Your task to perform on an android device: Go to Amazon Image 0: 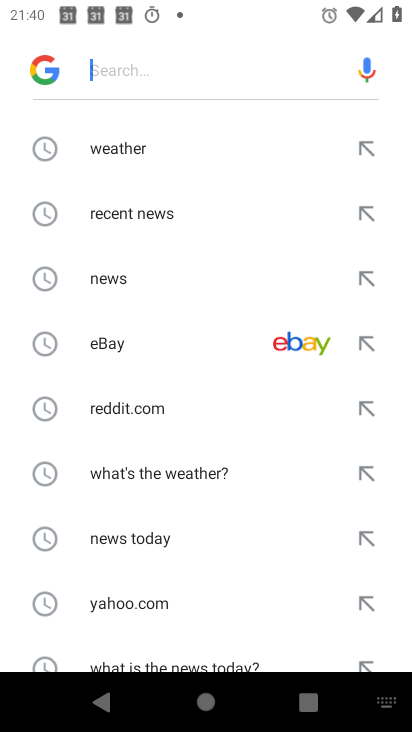
Step 0: press home button
Your task to perform on an android device: Go to Amazon Image 1: 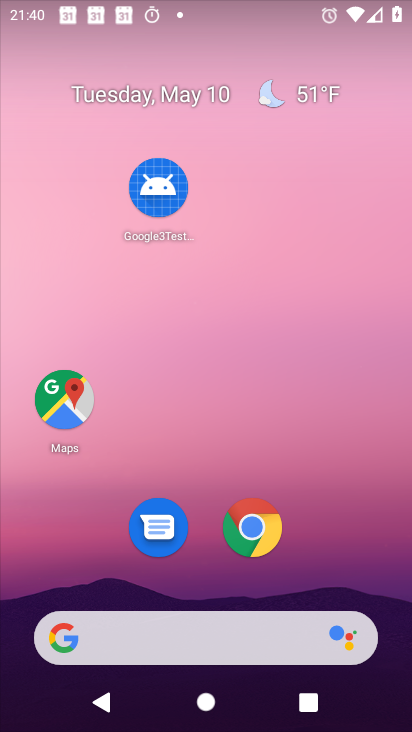
Step 1: click (254, 531)
Your task to perform on an android device: Go to Amazon Image 2: 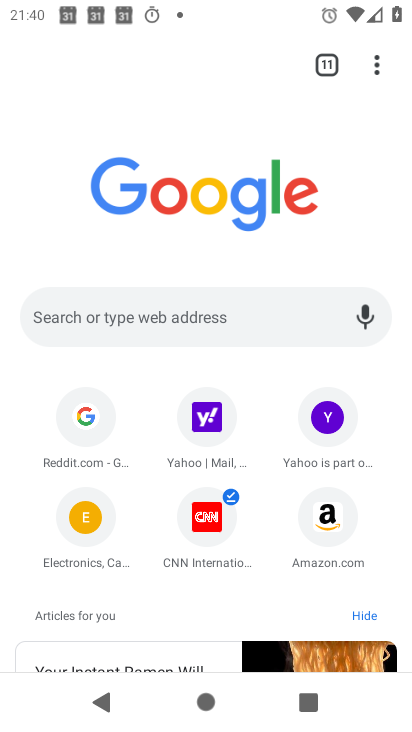
Step 2: click (314, 529)
Your task to perform on an android device: Go to Amazon Image 3: 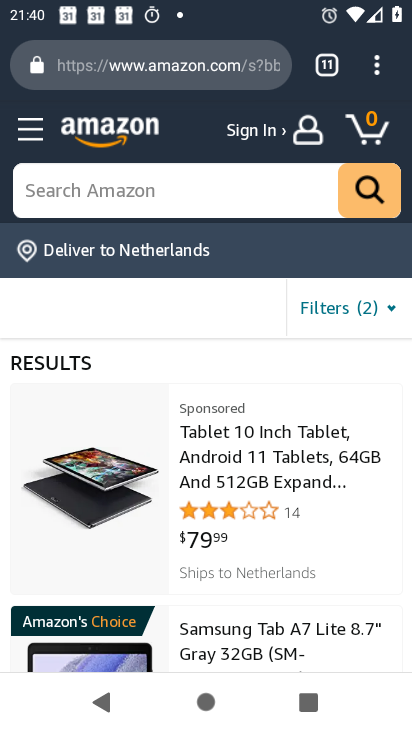
Step 3: task complete